Your task to perform on an android device: Do I have any events today? Image 0: 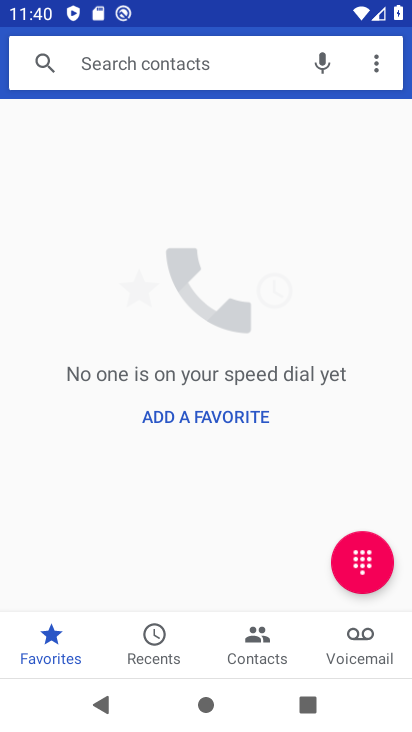
Step 0: press home button
Your task to perform on an android device: Do I have any events today? Image 1: 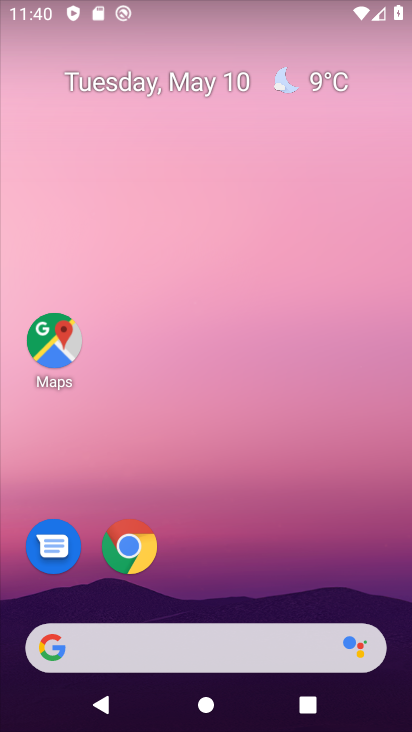
Step 1: drag from (180, 595) to (246, 25)
Your task to perform on an android device: Do I have any events today? Image 2: 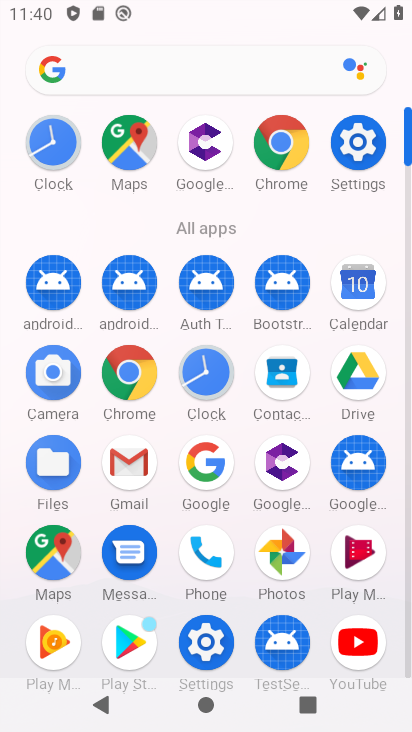
Step 2: click (336, 298)
Your task to perform on an android device: Do I have any events today? Image 3: 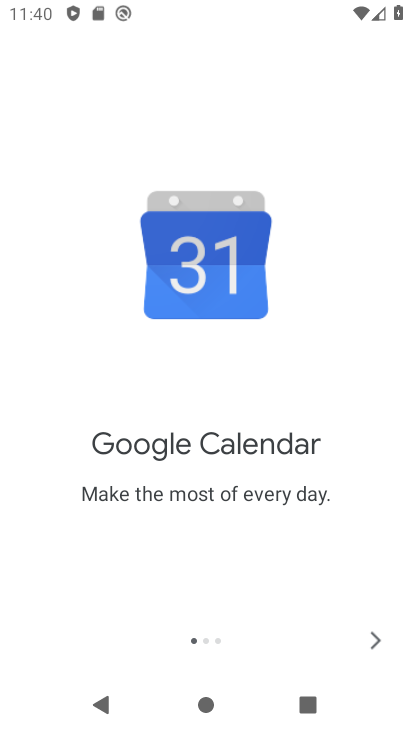
Step 3: click (377, 636)
Your task to perform on an android device: Do I have any events today? Image 4: 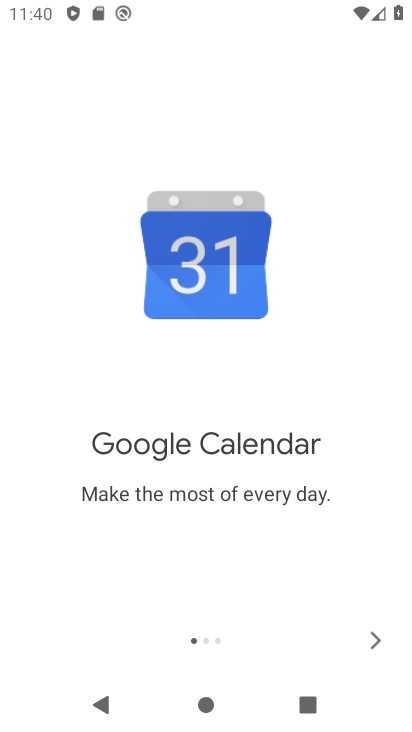
Step 4: click (377, 636)
Your task to perform on an android device: Do I have any events today? Image 5: 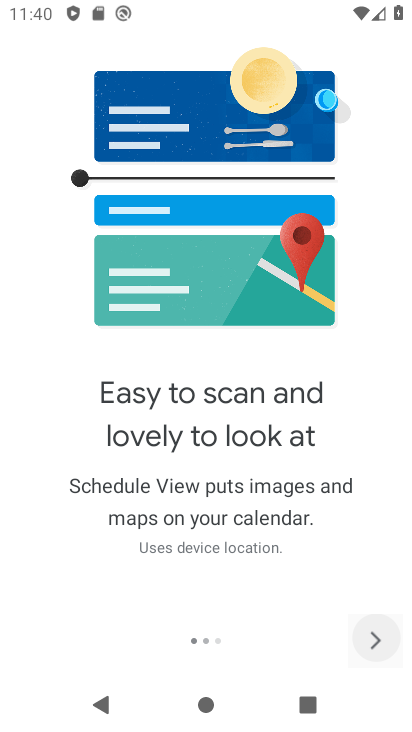
Step 5: click (377, 636)
Your task to perform on an android device: Do I have any events today? Image 6: 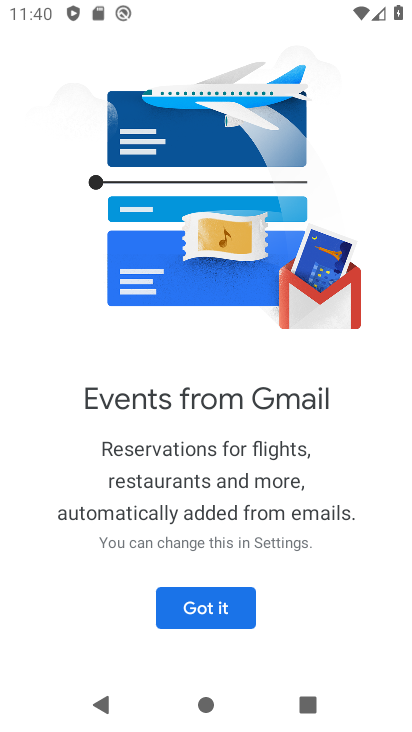
Step 6: click (377, 636)
Your task to perform on an android device: Do I have any events today? Image 7: 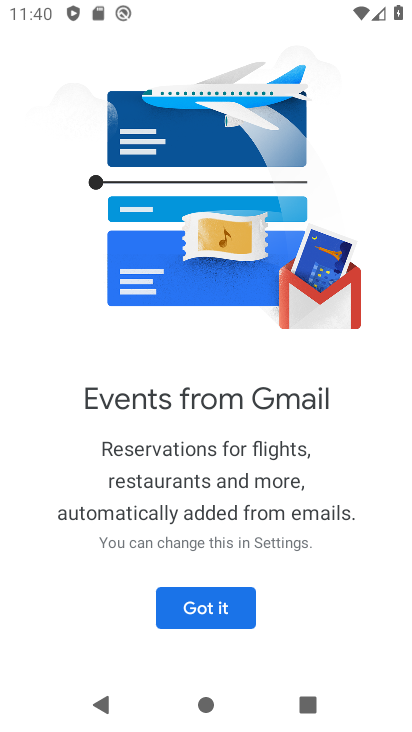
Step 7: click (215, 600)
Your task to perform on an android device: Do I have any events today? Image 8: 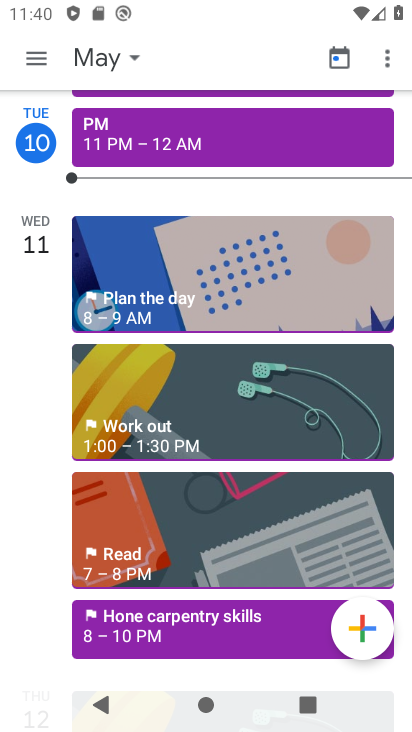
Step 8: click (41, 146)
Your task to perform on an android device: Do I have any events today? Image 9: 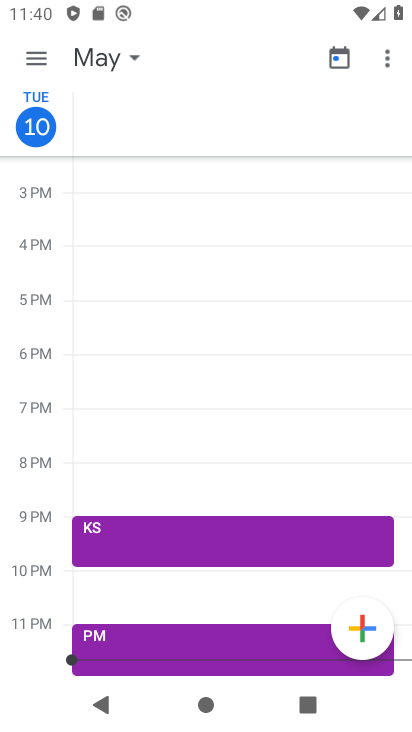
Step 9: task complete